Your task to perform on an android device: refresh tabs in the chrome app Image 0: 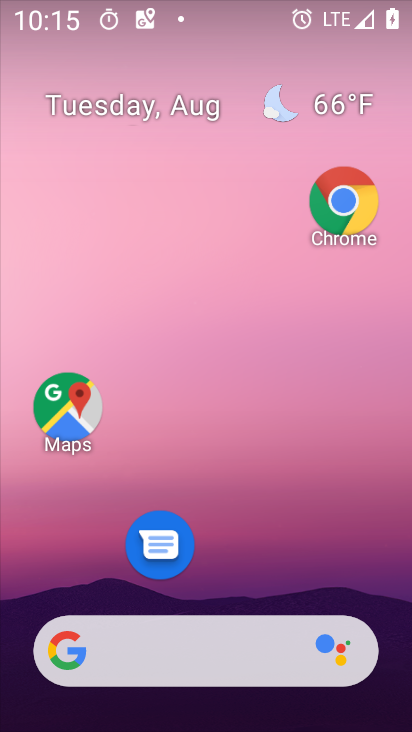
Step 0: drag from (240, 190) to (240, 29)
Your task to perform on an android device: refresh tabs in the chrome app Image 1: 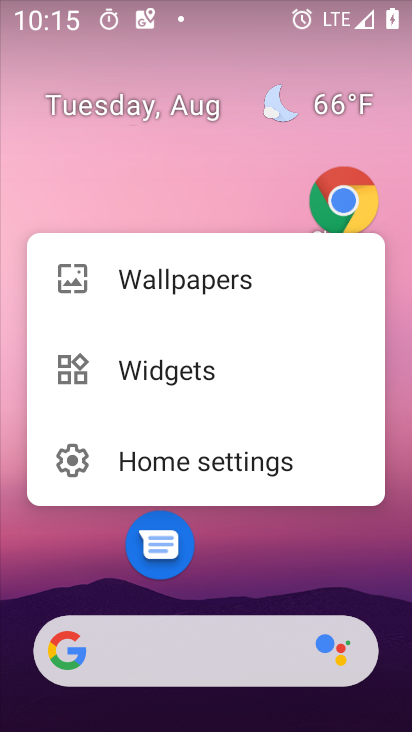
Step 1: click (175, 186)
Your task to perform on an android device: refresh tabs in the chrome app Image 2: 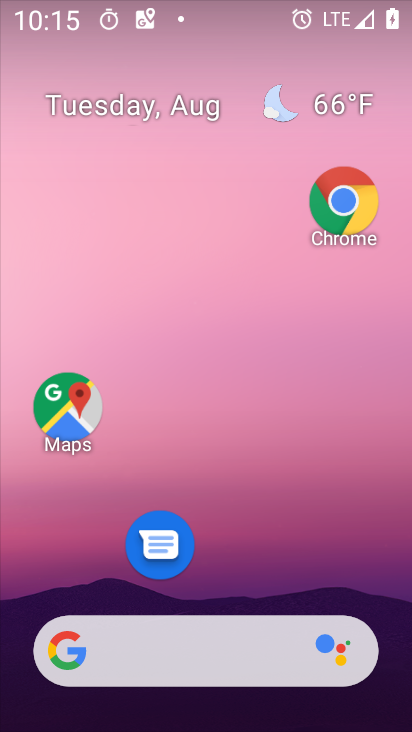
Step 2: click (333, 218)
Your task to perform on an android device: refresh tabs in the chrome app Image 3: 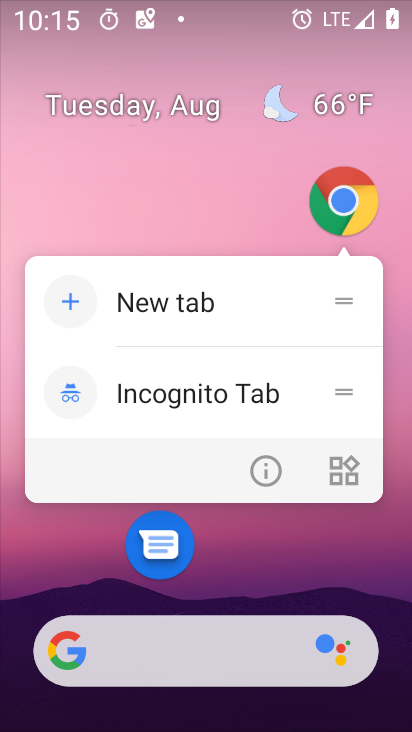
Step 3: click (333, 218)
Your task to perform on an android device: refresh tabs in the chrome app Image 4: 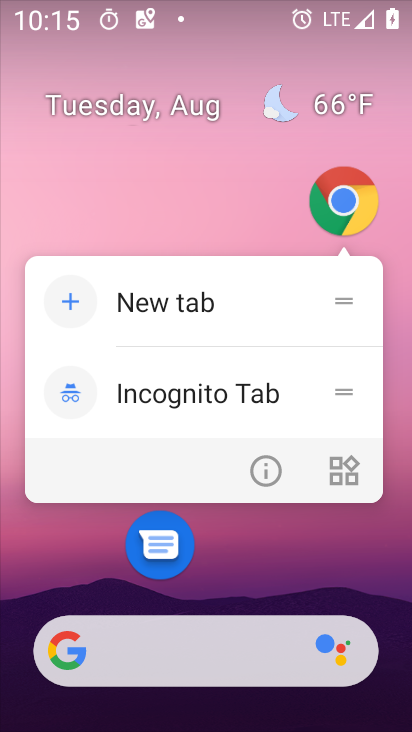
Step 4: click (354, 213)
Your task to perform on an android device: refresh tabs in the chrome app Image 5: 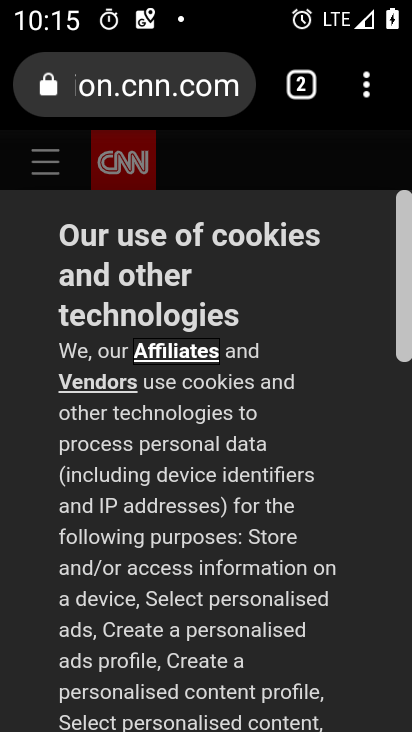
Step 5: click (359, 90)
Your task to perform on an android device: refresh tabs in the chrome app Image 6: 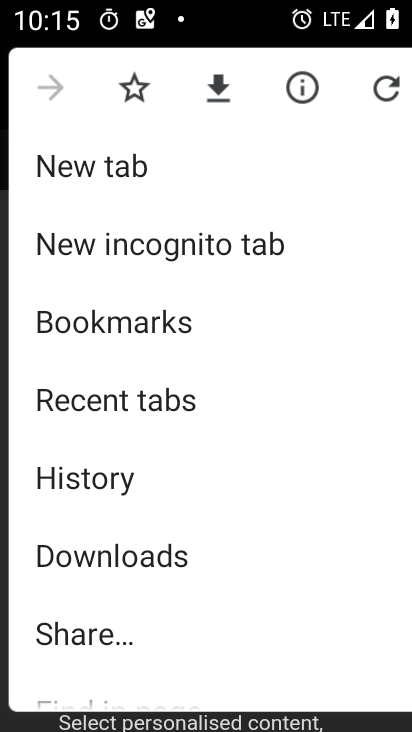
Step 6: click (373, 95)
Your task to perform on an android device: refresh tabs in the chrome app Image 7: 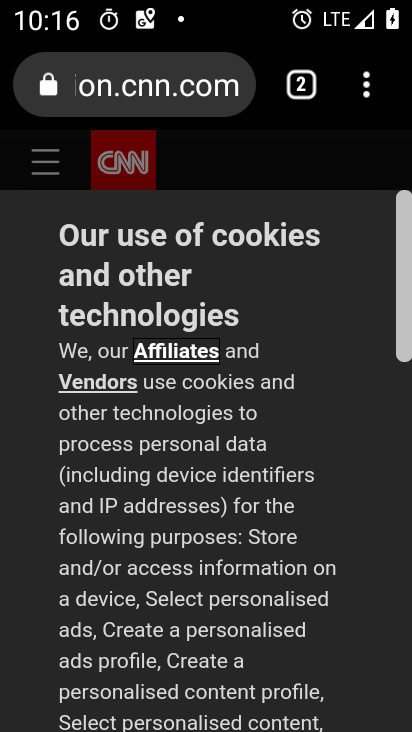
Step 7: task complete